Your task to perform on an android device: change the clock display to digital Image 0: 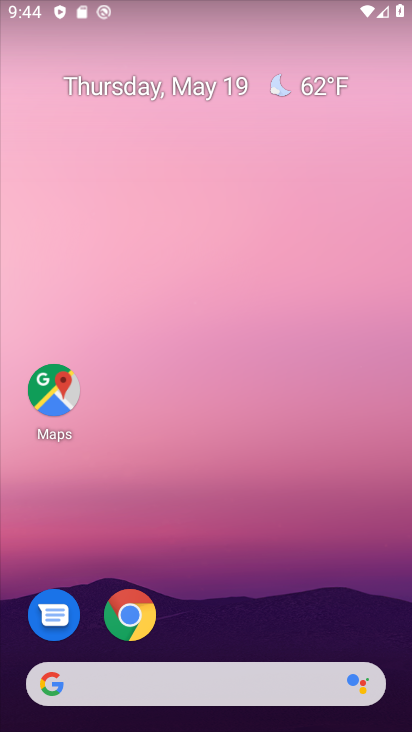
Step 0: drag from (306, 548) to (184, 68)
Your task to perform on an android device: change the clock display to digital Image 1: 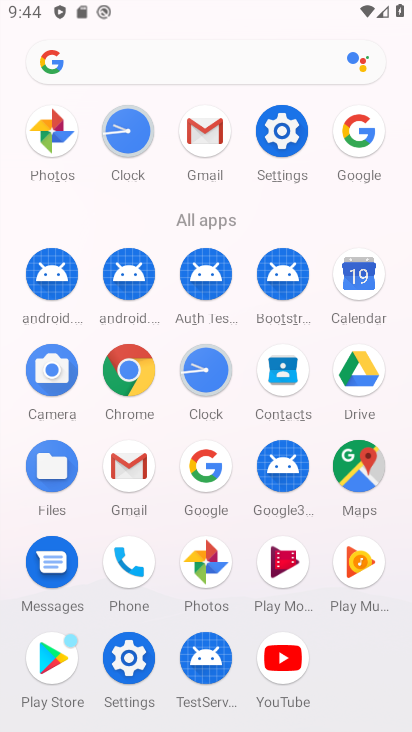
Step 1: click (140, 135)
Your task to perform on an android device: change the clock display to digital Image 2: 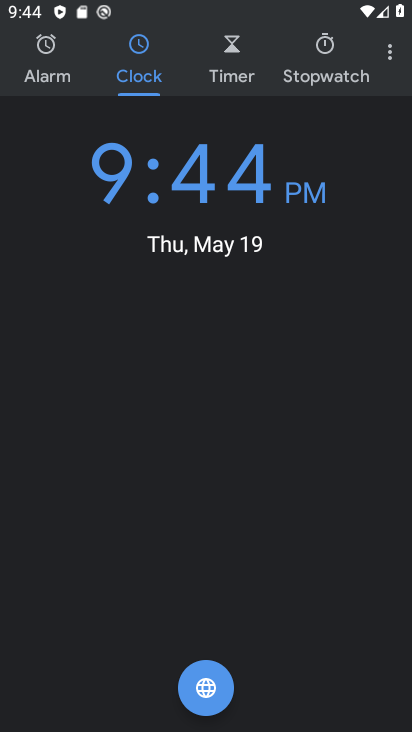
Step 2: click (395, 49)
Your task to perform on an android device: change the clock display to digital Image 3: 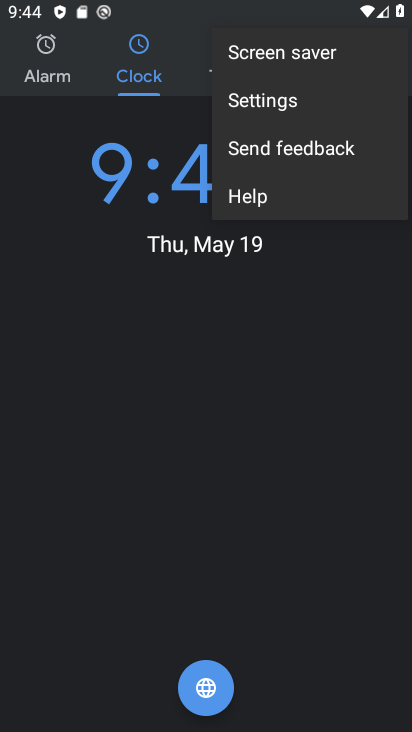
Step 3: click (280, 108)
Your task to perform on an android device: change the clock display to digital Image 4: 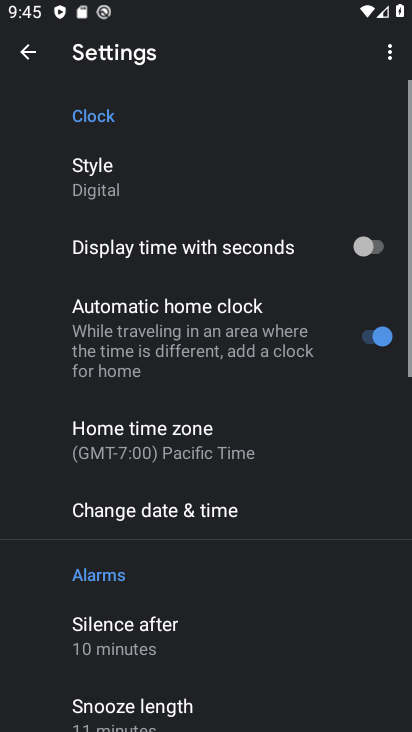
Step 4: click (129, 187)
Your task to perform on an android device: change the clock display to digital Image 5: 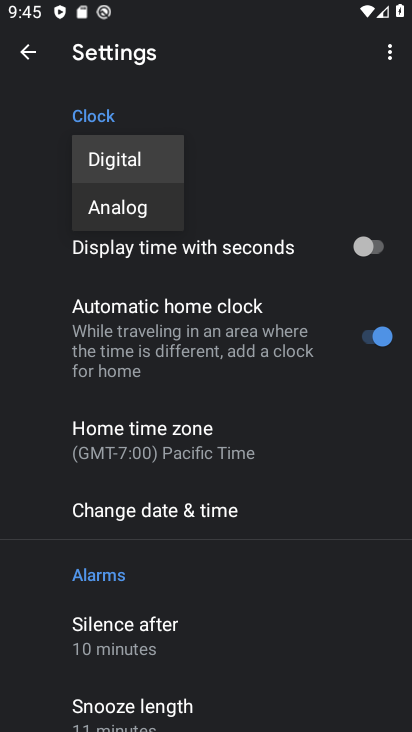
Step 5: click (150, 162)
Your task to perform on an android device: change the clock display to digital Image 6: 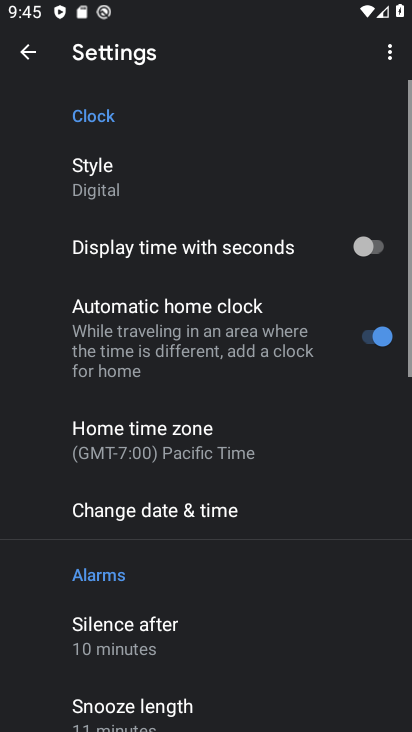
Step 6: task complete